Your task to perform on an android device: Open accessibility settings Image 0: 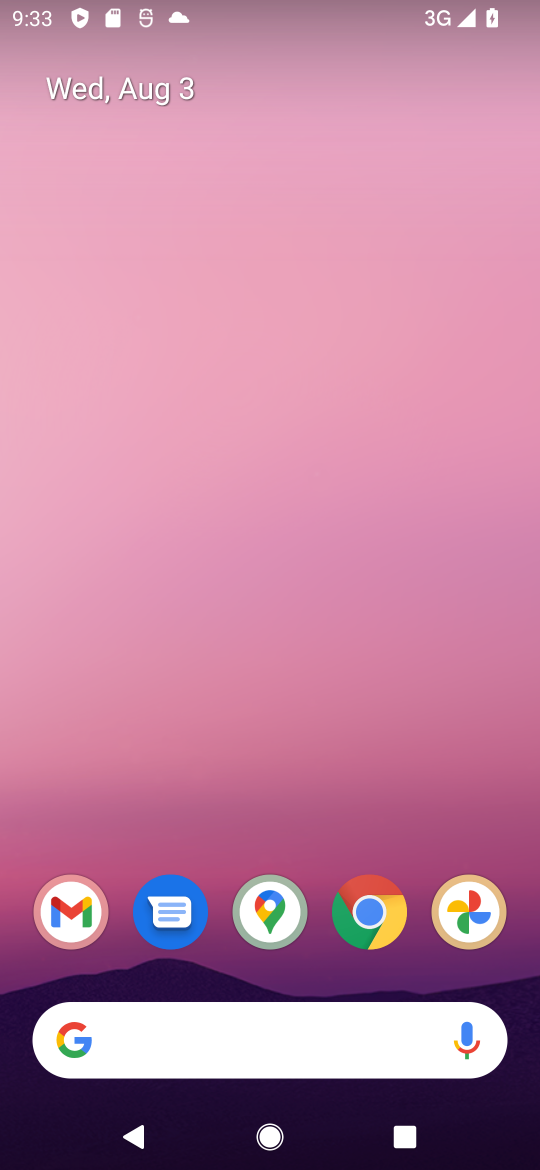
Step 0: drag from (380, 814) to (463, 729)
Your task to perform on an android device: Open accessibility settings Image 1: 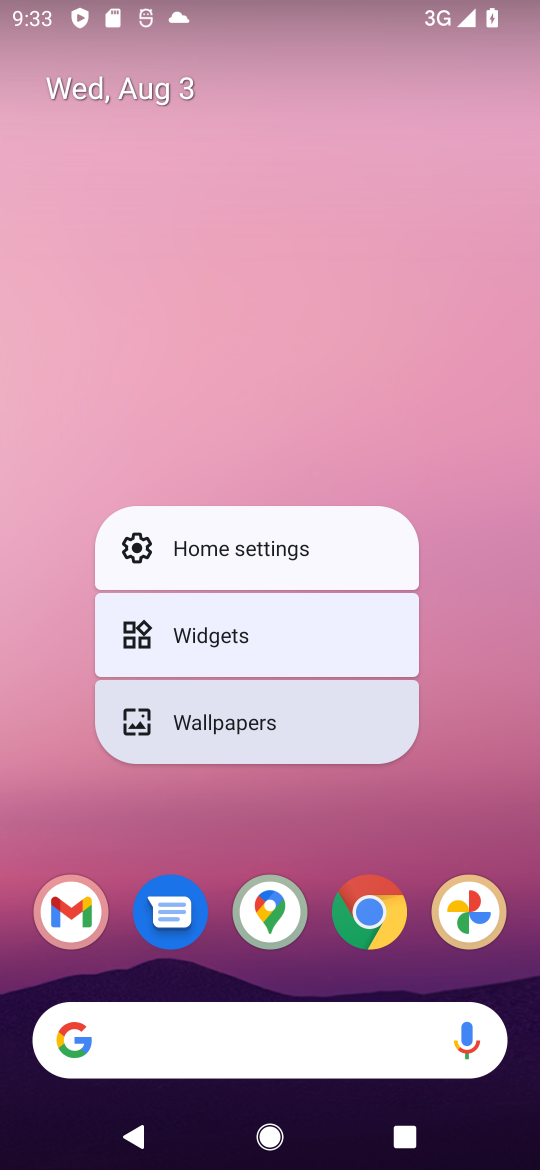
Step 1: drag from (407, 787) to (261, 43)
Your task to perform on an android device: Open accessibility settings Image 2: 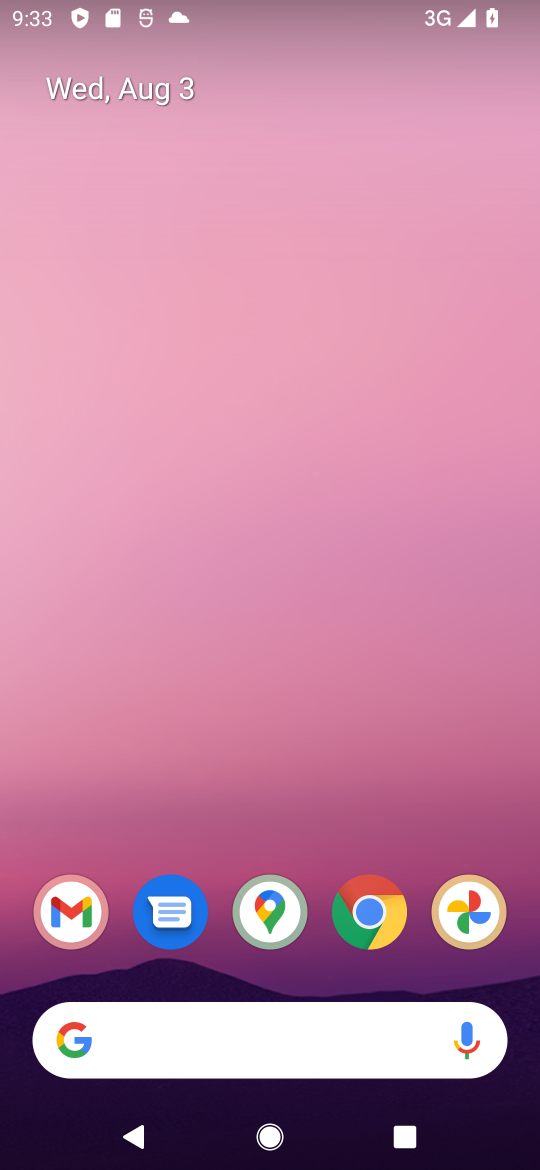
Step 2: drag from (333, 765) to (231, 37)
Your task to perform on an android device: Open accessibility settings Image 3: 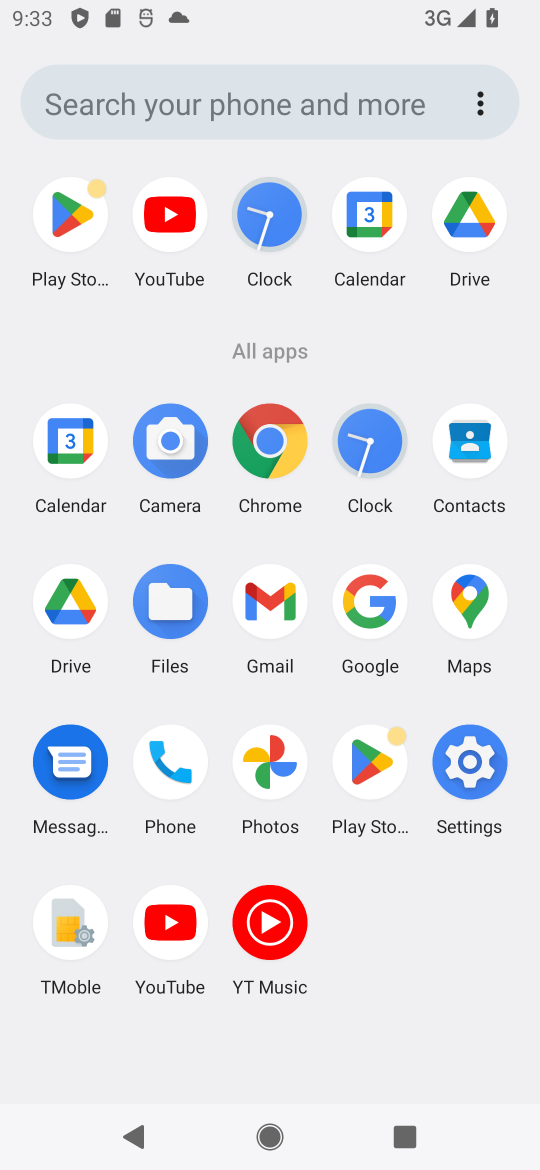
Step 3: click (487, 765)
Your task to perform on an android device: Open accessibility settings Image 4: 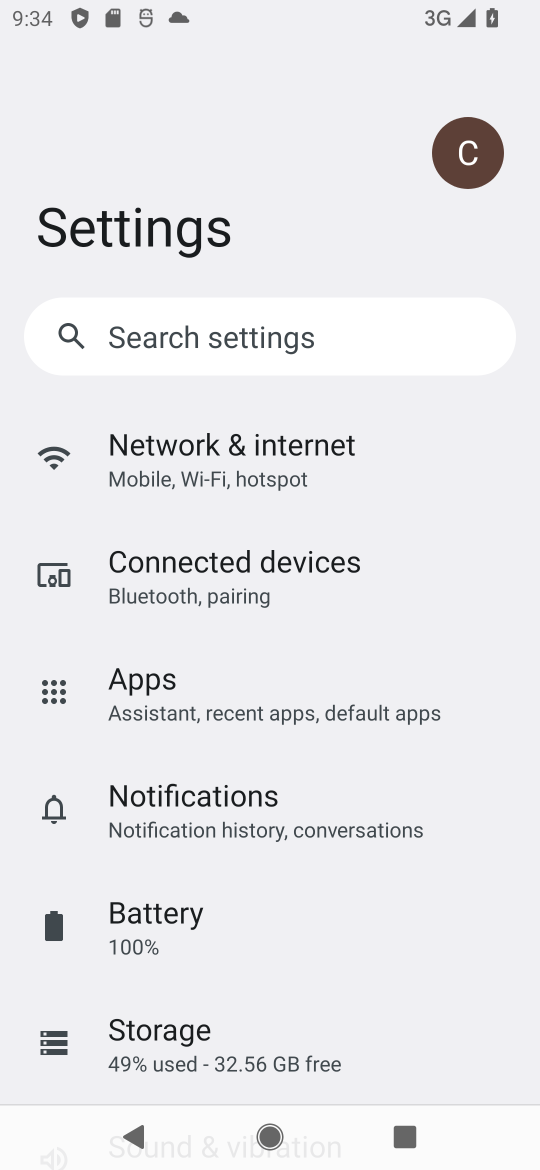
Step 4: drag from (316, 962) to (175, 218)
Your task to perform on an android device: Open accessibility settings Image 5: 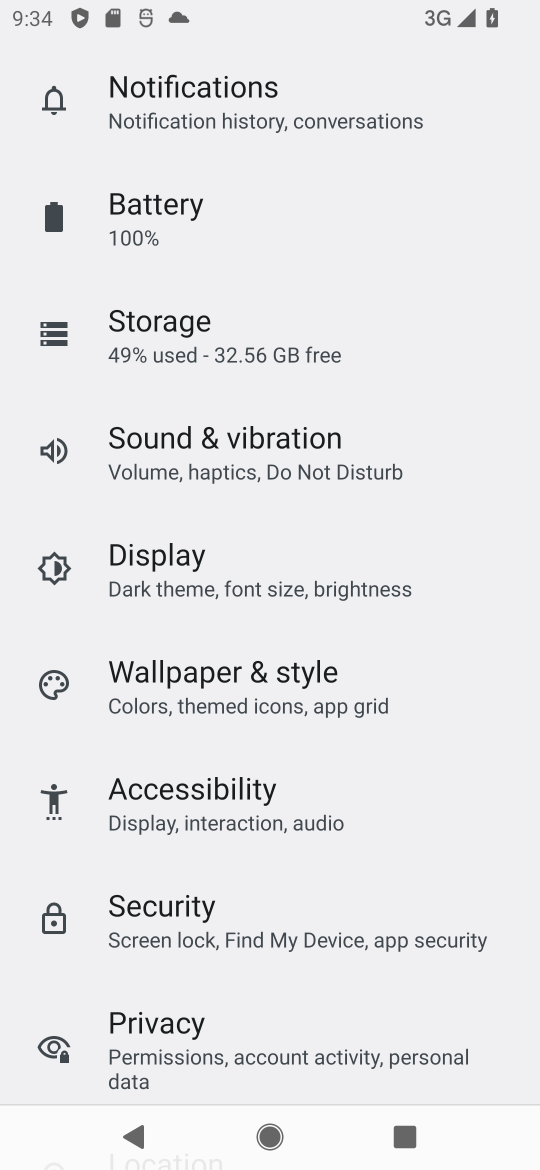
Step 5: click (151, 807)
Your task to perform on an android device: Open accessibility settings Image 6: 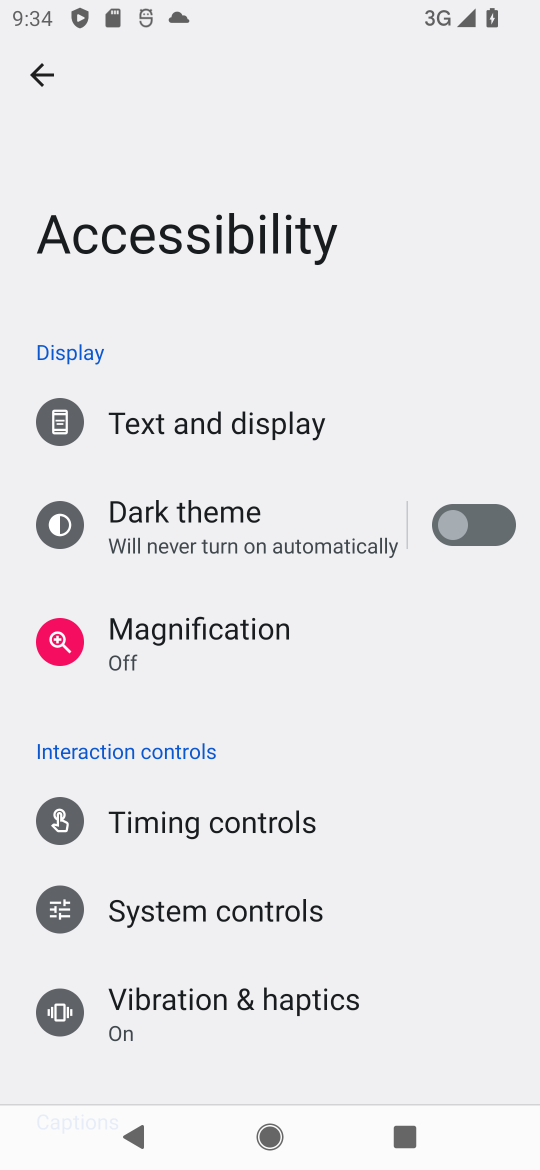
Step 6: task complete